Your task to perform on an android device: toggle notification dots Image 0: 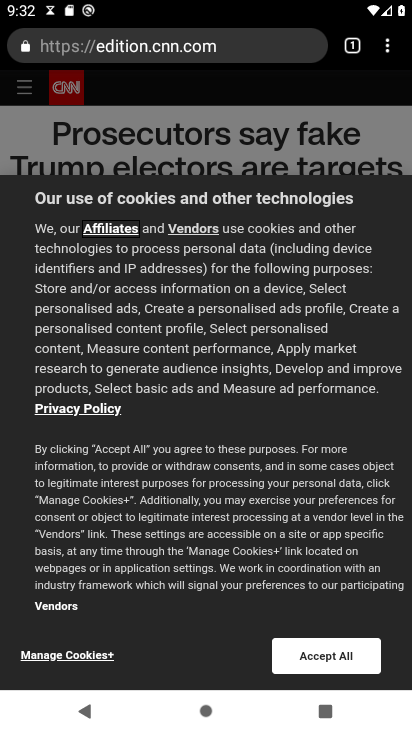
Step 0: press home button
Your task to perform on an android device: toggle notification dots Image 1: 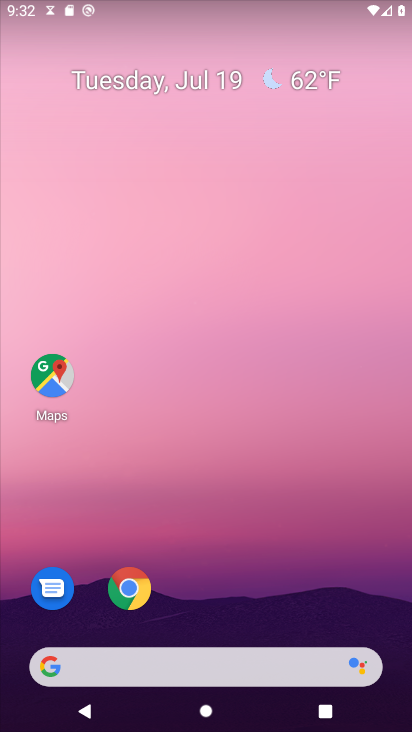
Step 1: drag from (183, 546) to (155, 206)
Your task to perform on an android device: toggle notification dots Image 2: 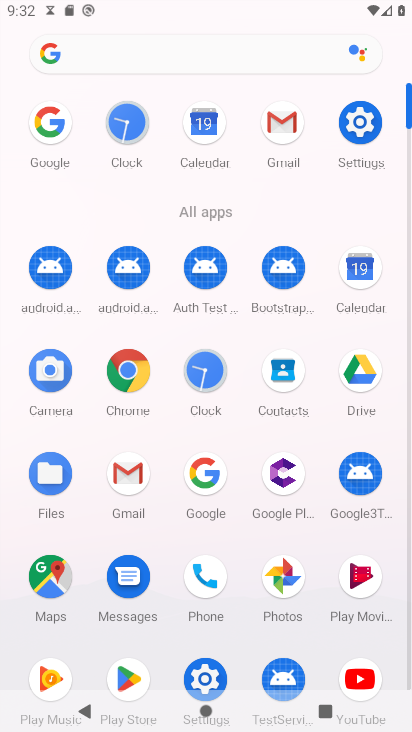
Step 2: click (358, 119)
Your task to perform on an android device: toggle notification dots Image 3: 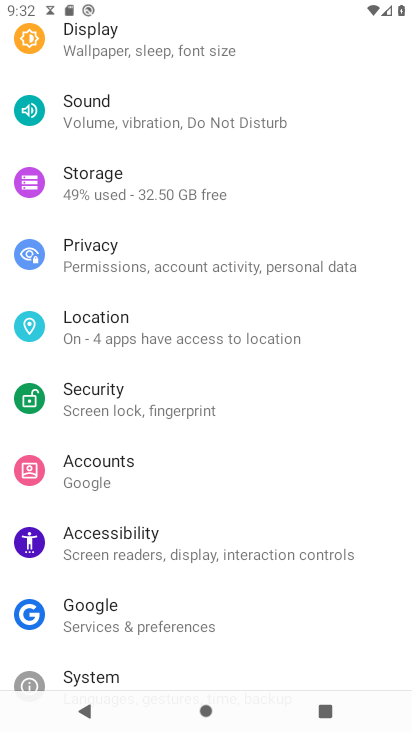
Step 3: drag from (225, 234) to (192, 548)
Your task to perform on an android device: toggle notification dots Image 4: 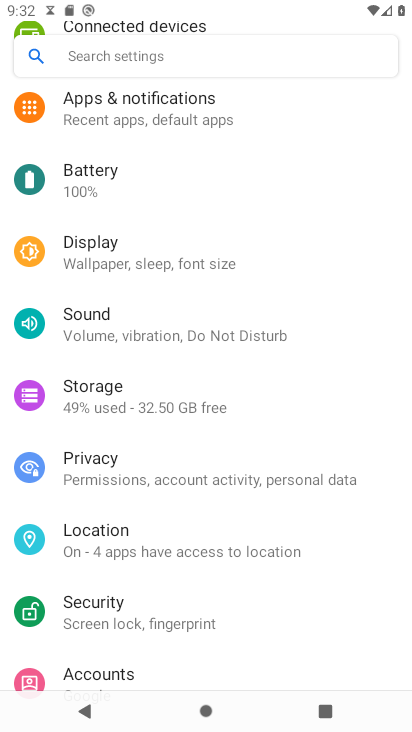
Step 4: click (156, 102)
Your task to perform on an android device: toggle notification dots Image 5: 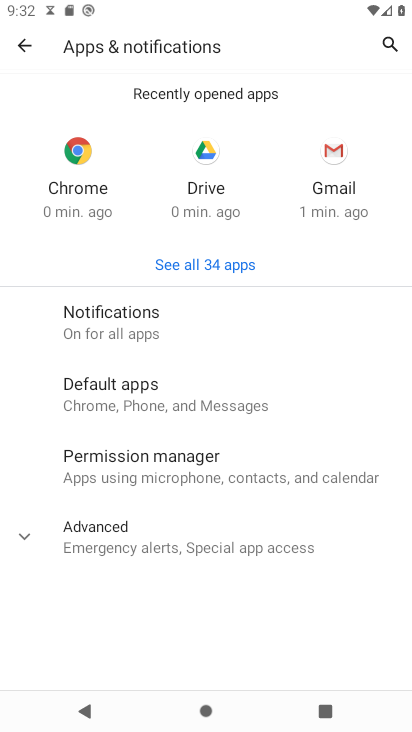
Step 5: click (109, 338)
Your task to perform on an android device: toggle notification dots Image 6: 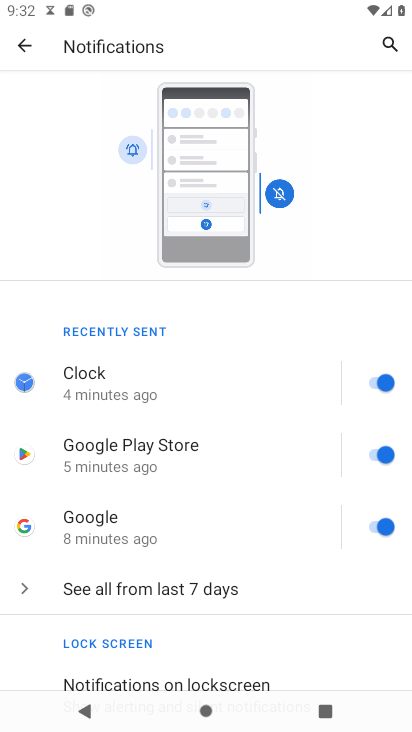
Step 6: drag from (170, 598) to (198, 267)
Your task to perform on an android device: toggle notification dots Image 7: 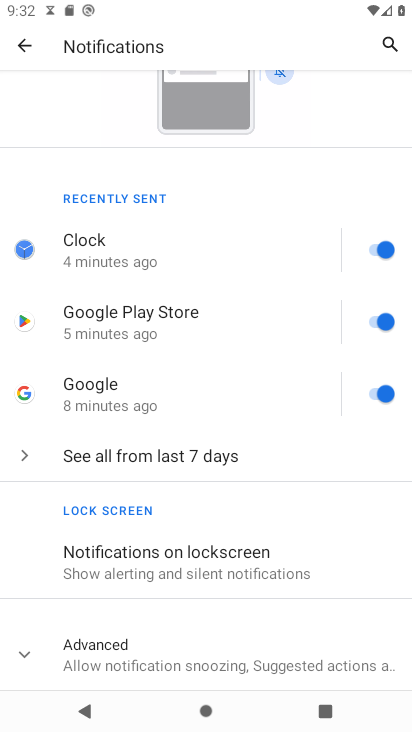
Step 7: click (147, 576)
Your task to perform on an android device: toggle notification dots Image 8: 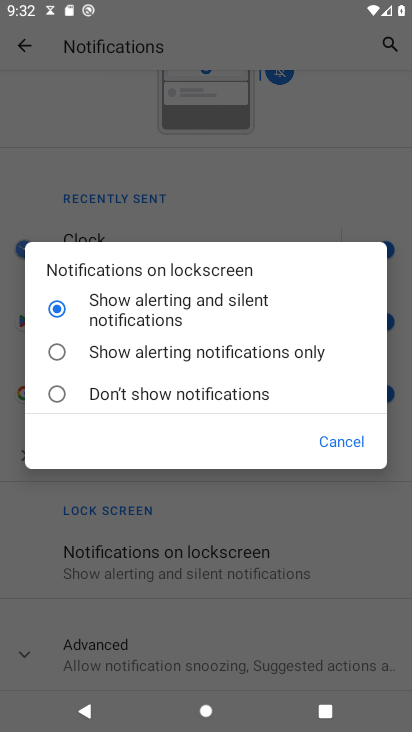
Step 8: click (56, 397)
Your task to perform on an android device: toggle notification dots Image 9: 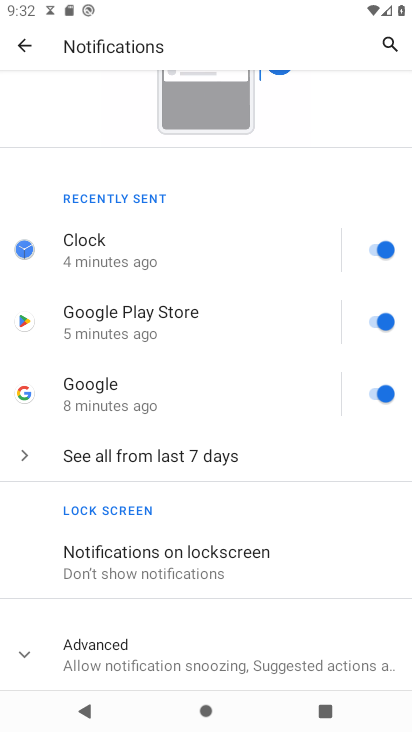
Step 9: task complete